Your task to perform on an android device: all mails in gmail Image 0: 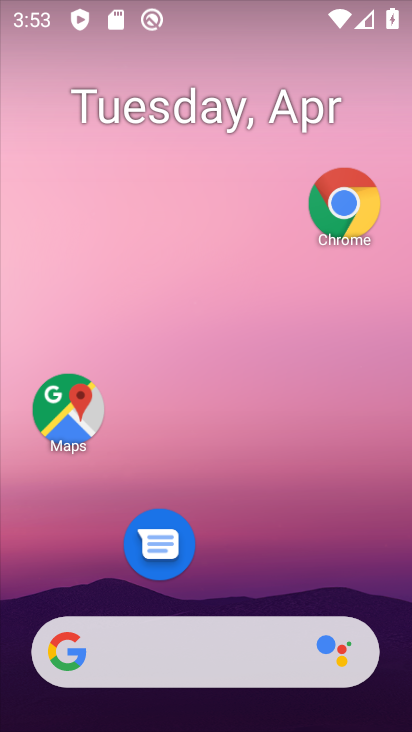
Step 0: drag from (224, 583) to (349, 9)
Your task to perform on an android device: all mails in gmail Image 1: 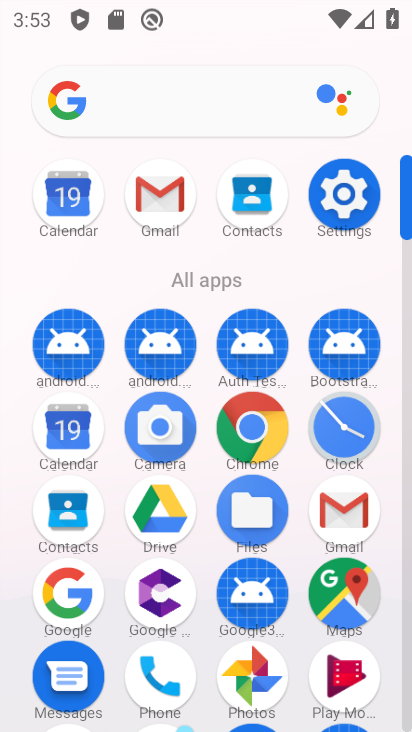
Step 1: click (354, 518)
Your task to perform on an android device: all mails in gmail Image 2: 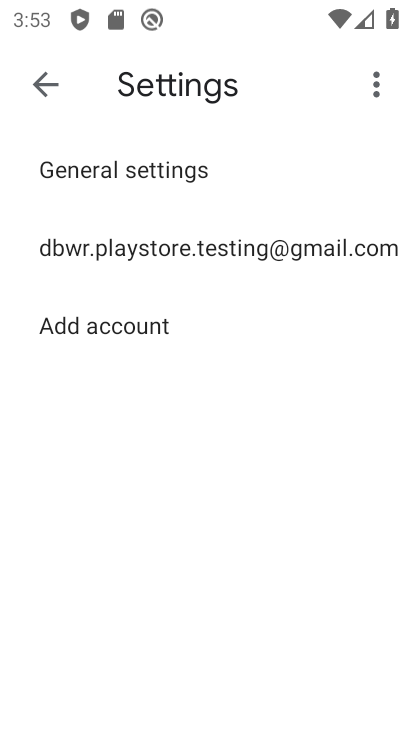
Step 2: click (36, 111)
Your task to perform on an android device: all mails in gmail Image 3: 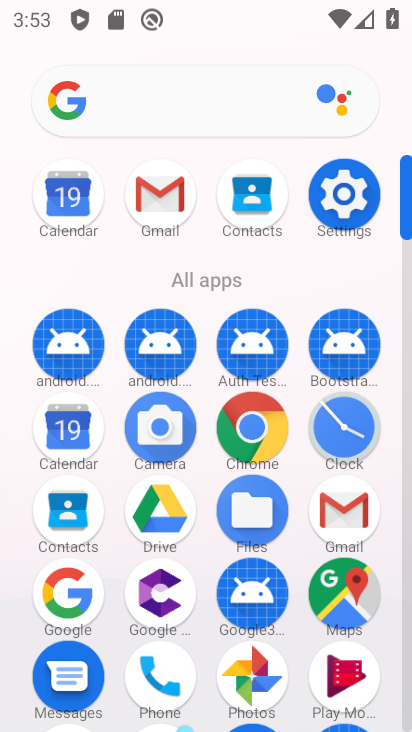
Step 3: click (155, 191)
Your task to perform on an android device: all mails in gmail Image 4: 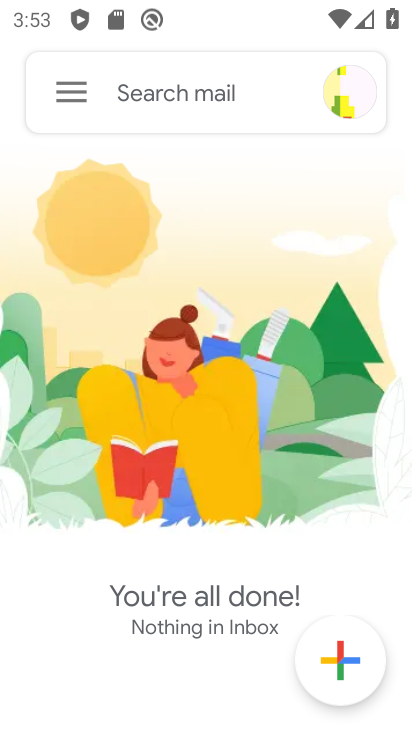
Step 4: click (84, 100)
Your task to perform on an android device: all mails in gmail Image 5: 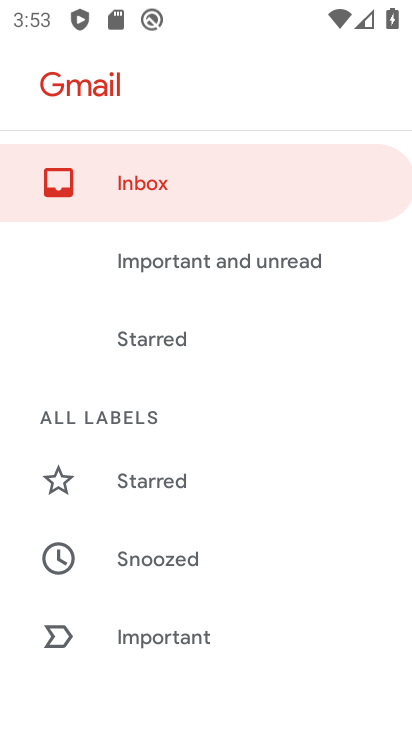
Step 5: drag from (137, 574) to (209, 242)
Your task to perform on an android device: all mails in gmail Image 6: 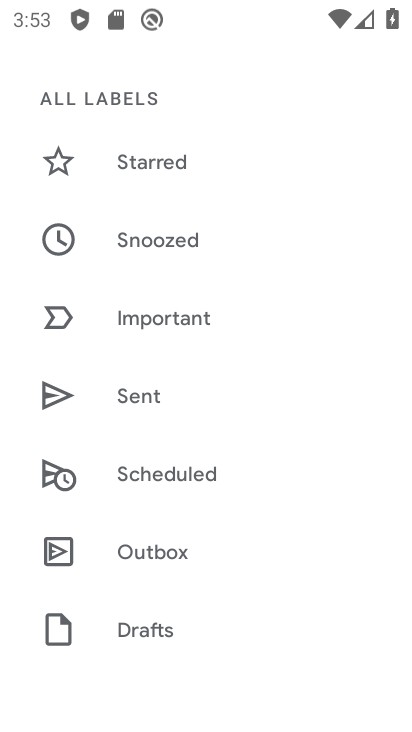
Step 6: drag from (140, 581) to (193, 236)
Your task to perform on an android device: all mails in gmail Image 7: 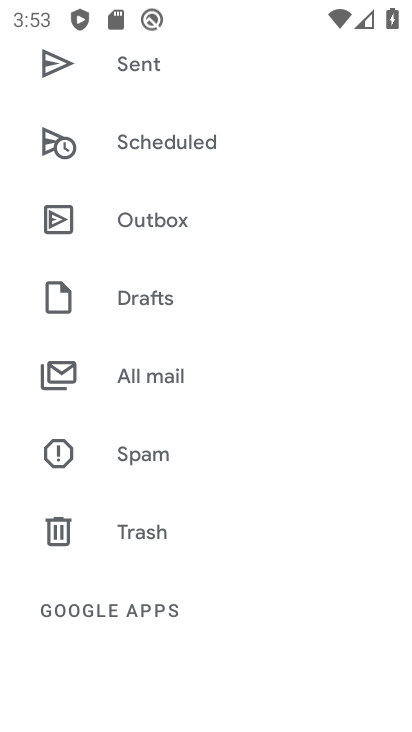
Step 7: click (156, 376)
Your task to perform on an android device: all mails in gmail Image 8: 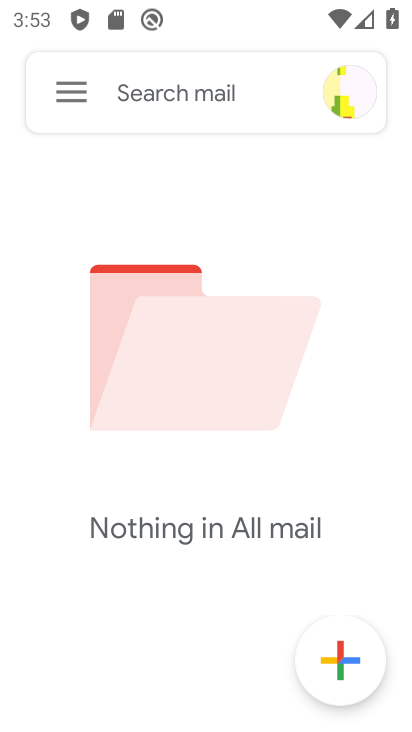
Step 8: task complete